Your task to perform on an android device: toggle priority inbox in the gmail app Image 0: 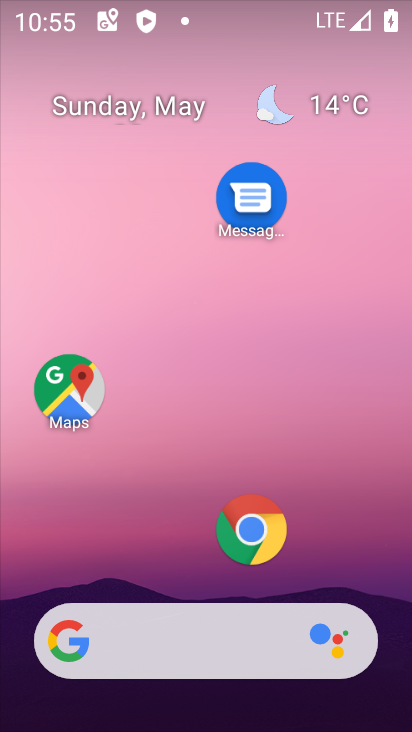
Step 0: drag from (164, 549) to (197, 116)
Your task to perform on an android device: toggle priority inbox in the gmail app Image 1: 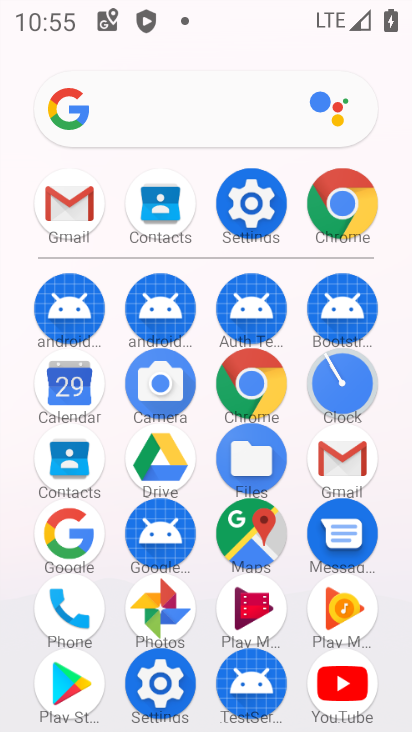
Step 1: click (367, 456)
Your task to perform on an android device: toggle priority inbox in the gmail app Image 2: 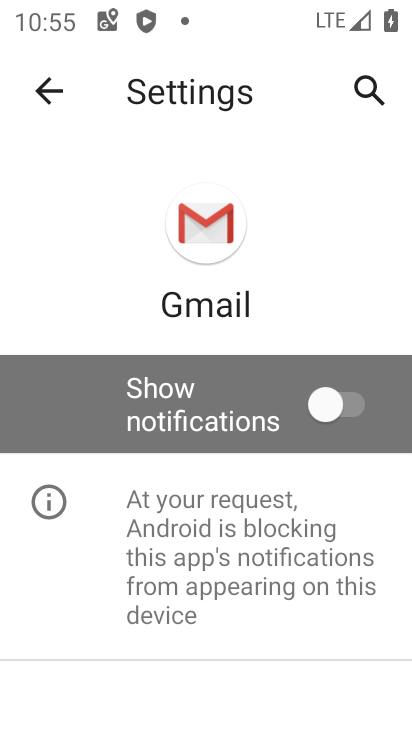
Step 2: click (47, 91)
Your task to perform on an android device: toggle priority inbox in the gmail app Image 3: 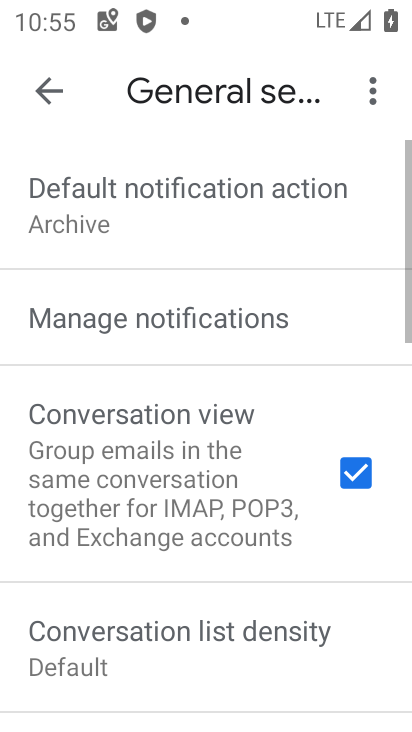
Step 3: click (44, 91)
Your task to perform on an android device: toggle priority inbox in the gmail app Image 4: 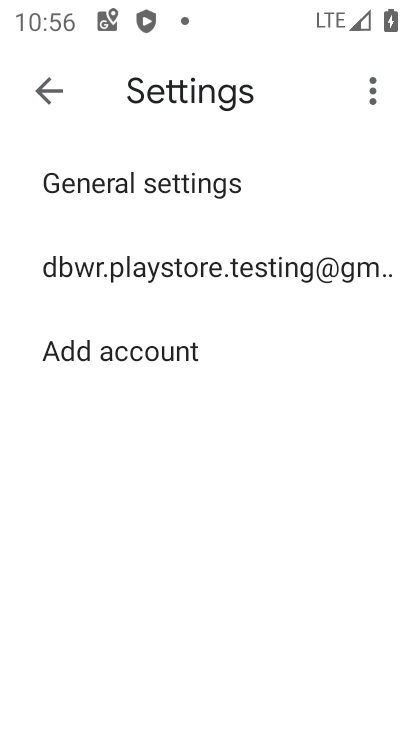
Step 4: click (134, 253)
Your task to perform on an android device: toggle priority inbox in the gmail app Image 5: 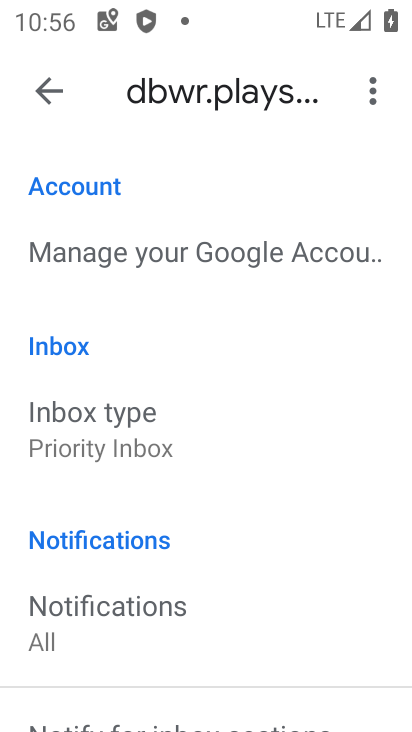
Step 5: click (133, 434)
Your task to perform on an android device: toggle priority inbox in the gmail app Image 6: 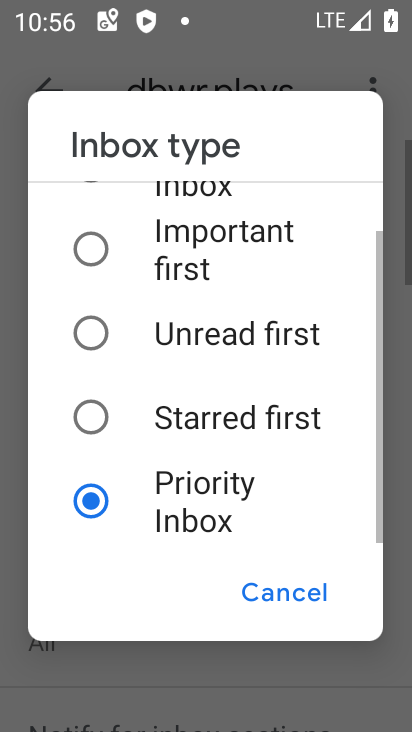
Step 6: drag from (138, 243) to (119, 558)
Your task to perform on an android device: toggle priority inbox in the gmail app Image 7: 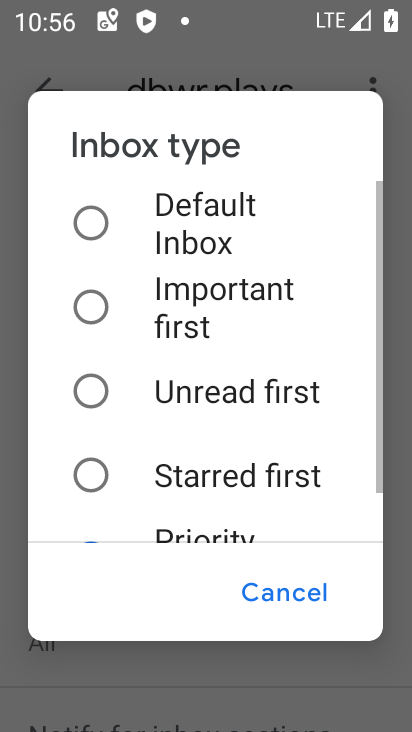
Step 7: click (98, 215)
Your task to perform on an android device: toggle priority inbox in the gmail app Image 8: 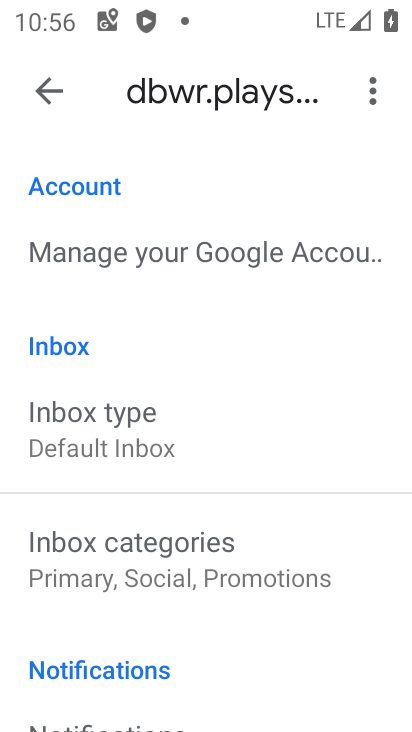
Step 8: task complete